Your task to perform on an android device: turn off javascript in the chrome app Image 0: 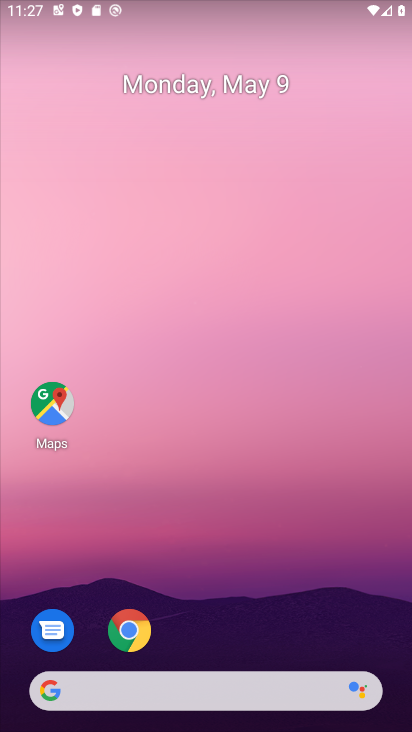
Step 0: drag from (230, 578) to (212, 31)
Your task to perform on an android device: turn off javascript in the chrome app Image 1: 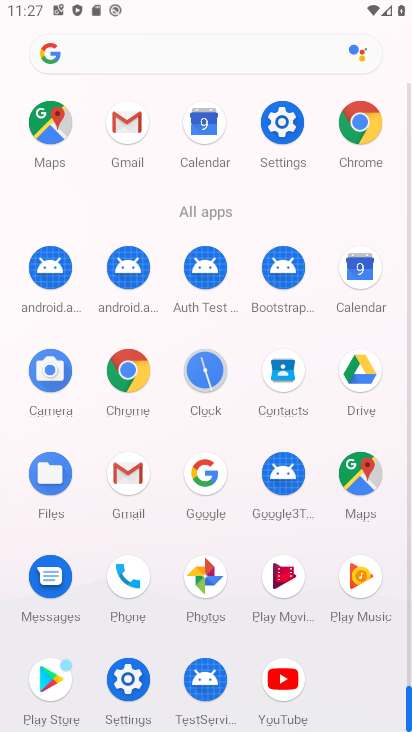
Step 1: drag from (5, 599) to (14, 294)
Your task to perform on an android device: turn off javascript in the chrome app Image 2: 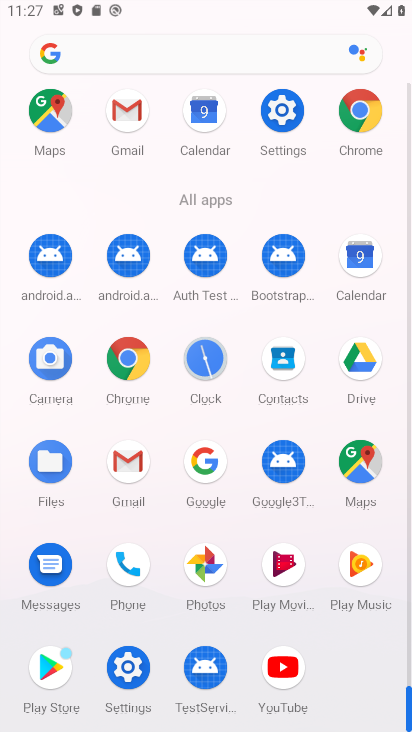
Step 2: click (354, 105)
Your task to perform on an android device: turn off javascript in the chrome app Image 3: 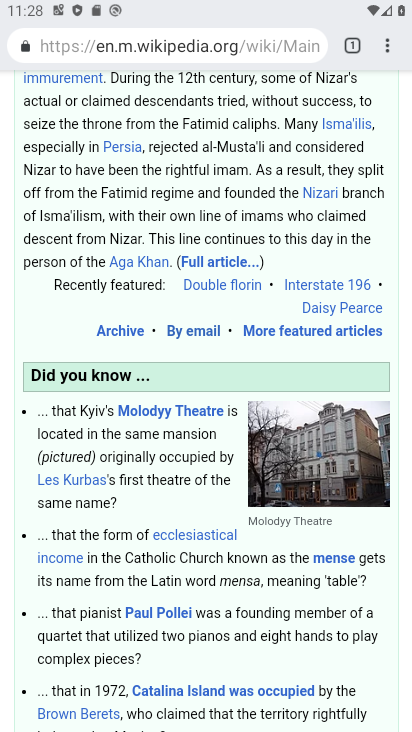
Step 3: drag from (385, 40) to (260, 542)
Your task to perform on an android device: turn off javascript in the chrome app Image 4: 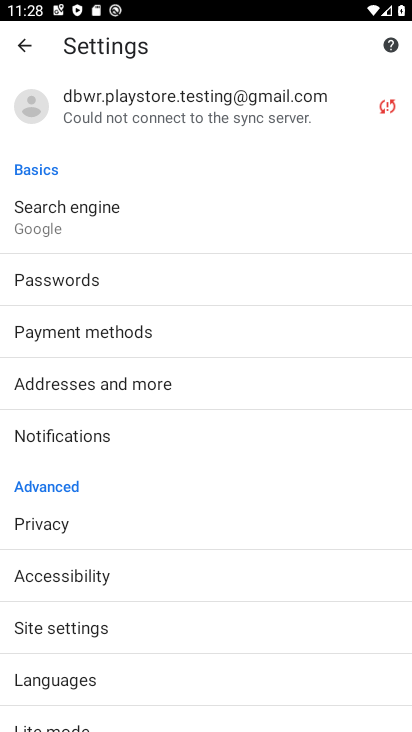
Step 4: drag from (162, 622) to (201, 154)
Your task to perform on an android device: turn off javascript in the chrome app Image 5: 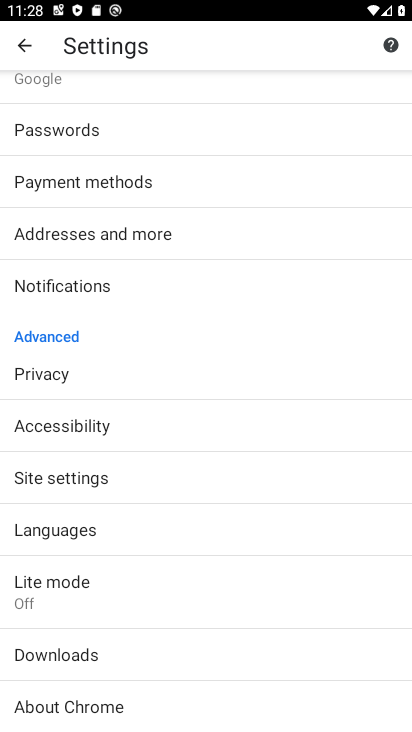
Step 5: click (101, 478)
Your task to perform on an android device: turn off javascript in the chrome app Image 6: 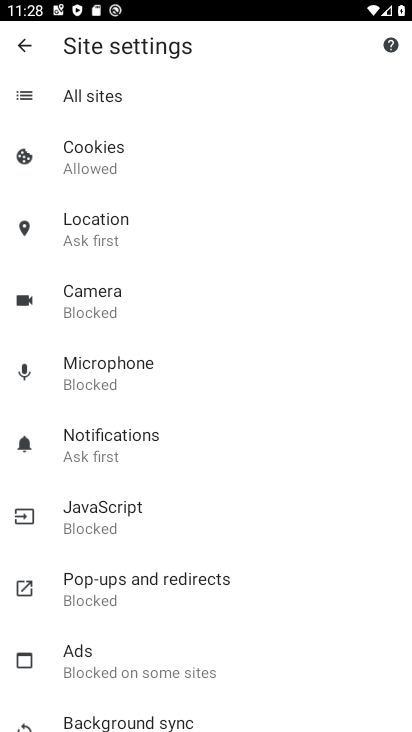
Step 6: click (150, 516)
Your task to perform on an android device: turn off javascript in the chrome app Image 7: 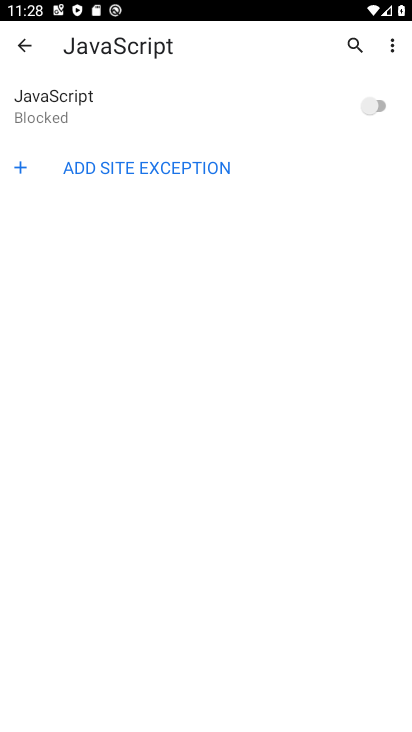
Step 7: task complete